Your task to perform on an android device: Go to notification settings Image 0: 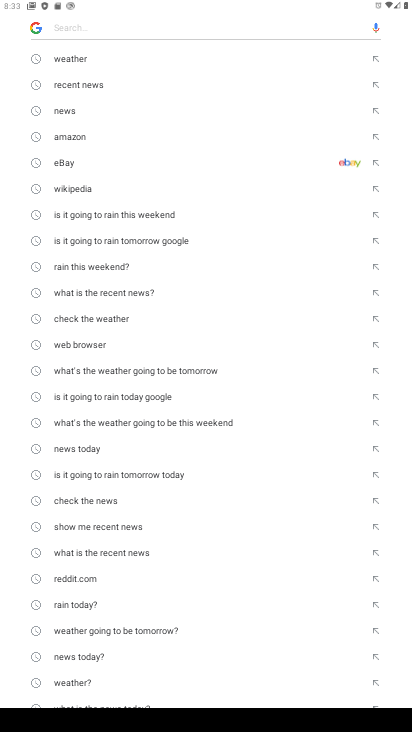
Step 0: press back button
Your task to perform on an android device: Go to notification settings Image 1: 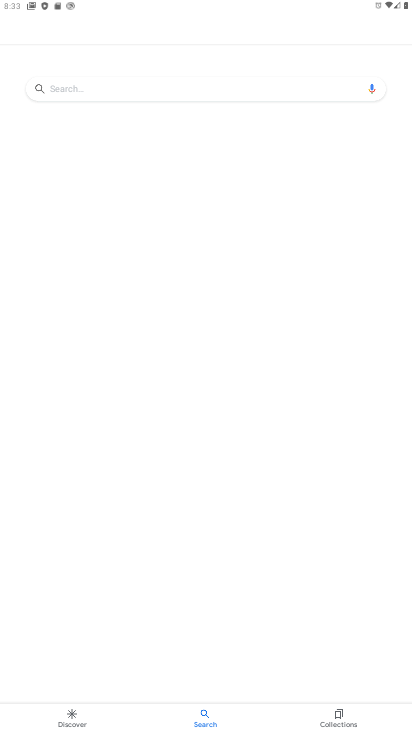
Step 1: press back button
Your task to perform on an android device: Go to notification settings Image 2: 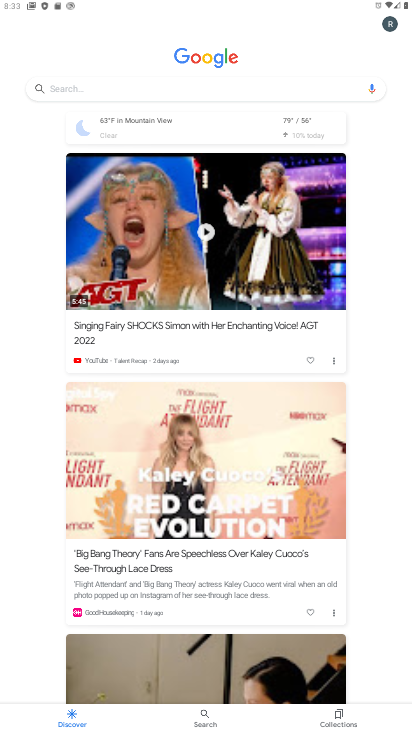
Step 2: press back button
Your task to perform on an android device: Go to notification settings Image 3: 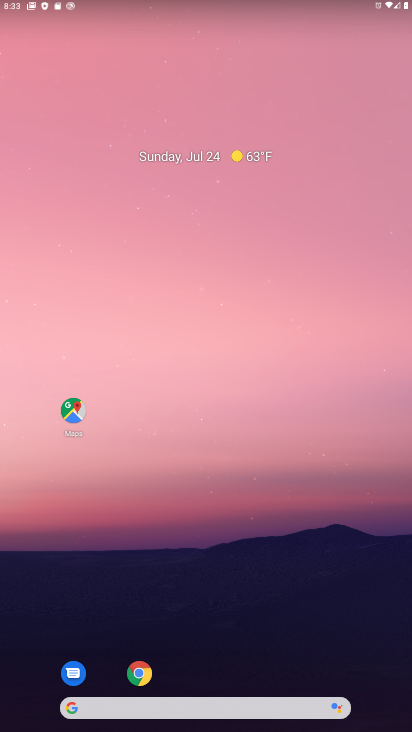
Step 3: drag from (212, 663) to (113, 146)
Your task to perform on an android device: Go to notification settings Image 4: 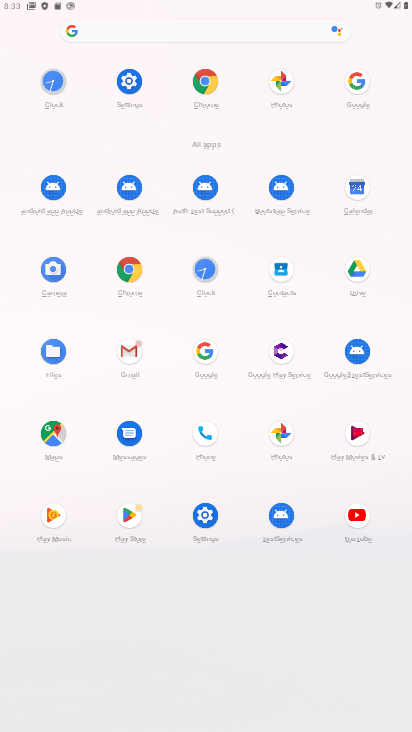
Step 4: click (55, 76)
Your task to perform on an android device: Go to notification settings Image 5: 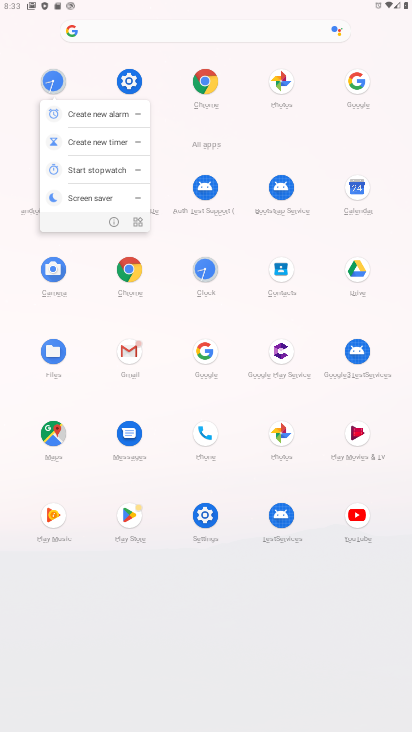
Step 5: click (144, 80)
Your task to perform on an android device: Go to notification settings Image 6: 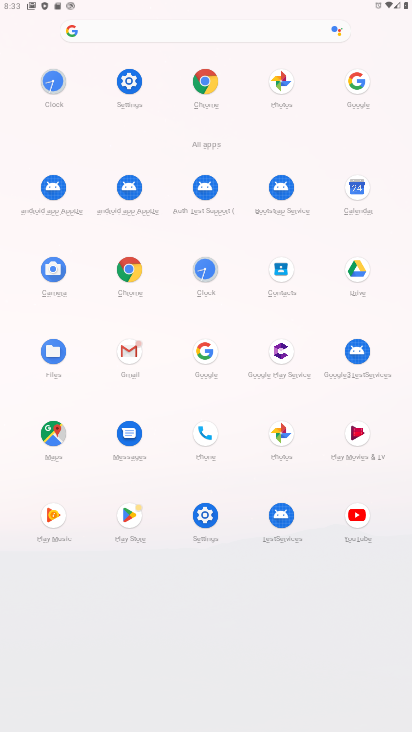
Step 6: click (136, 80)
Your task to perform on an android device: Go to notification settings Image 7: 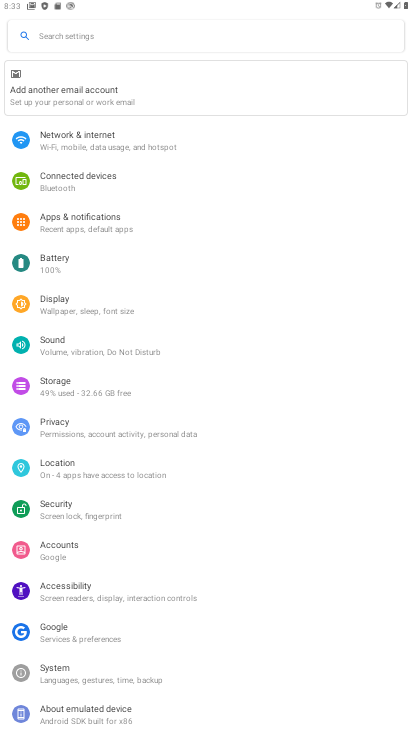
Step 7: click (105, 237)
Your task to perform on an android device: Go to notification settings Image 8: 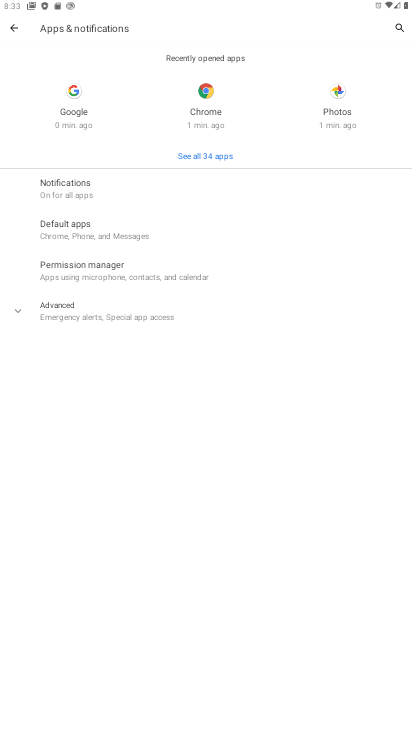
Step 8: click (79, 183)
Your task to perform on an android device: Go to notification settings Image 9: 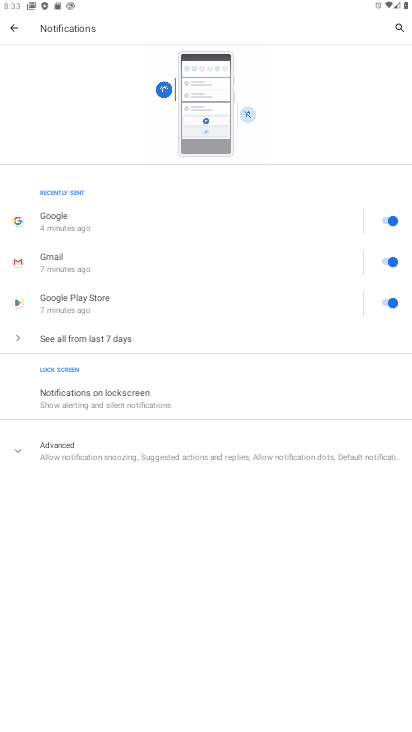
Step 9: task complete